Your task to perform on an android device: toggle data saver in the chrome app Image 0: 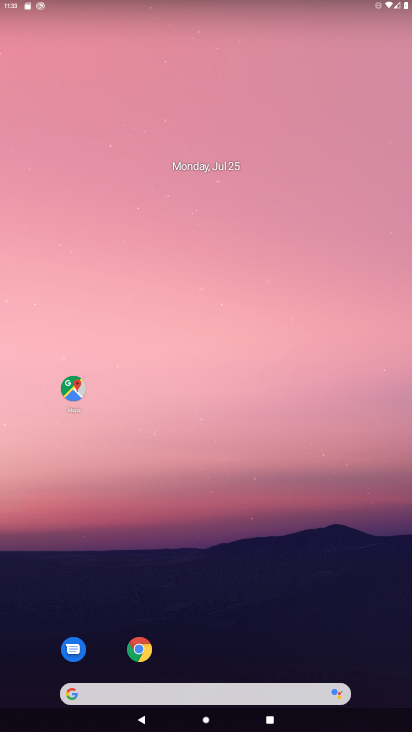
Step 0: click (138, 651)
Your task to perform on an android device: toggle data saver in the chrome app Image 1: 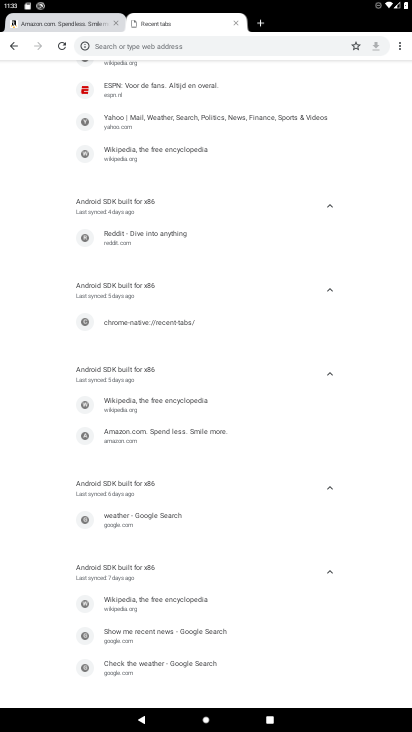
Step 1: click (401, 51)
Your task to perform on an android device: toggle data saver in the chrome app Image 2: 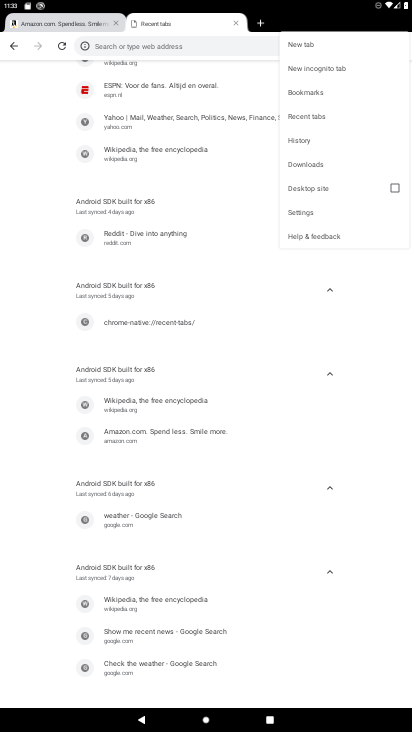
Step 2: click (305, 211)
Your task to perform on an android device: toggle data saver in the chrome app Image 3: 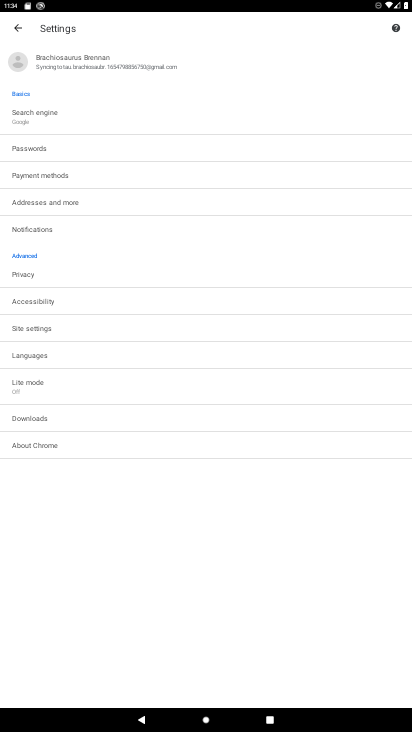
Step 3: click (29, 381)
Your task to perform on an android device: toggle data saver in the chrome app Image 4: 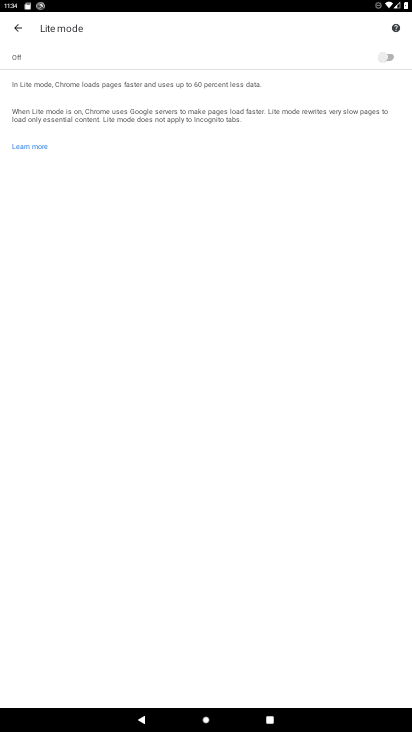
Step 4: click (390, 54)
Your task to perform on an android device: toggle data saver in the chrome app Image 5: 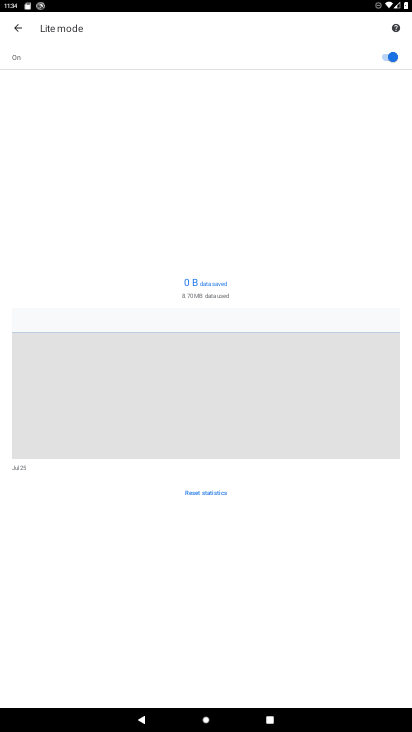
Step 5: task complete